Your task to perform on an android device: change the clock display to analog Image 0: 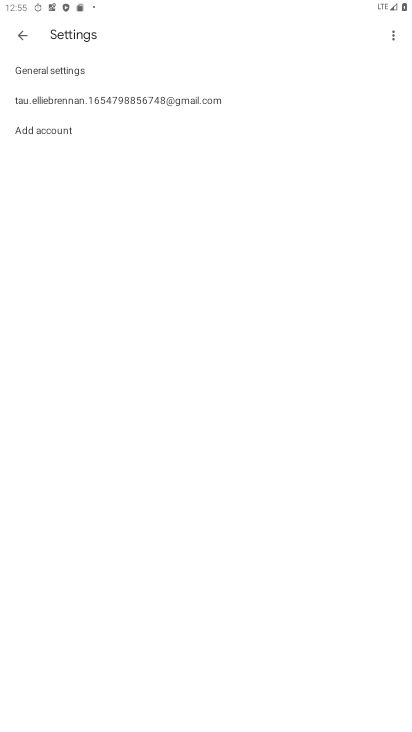
Step 0: press home button
Your task to perform on an android device: change the clock display to analog Image 1: 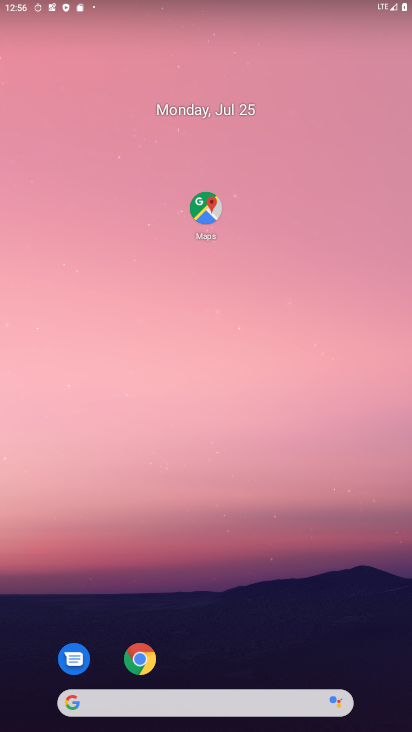
Step 1: click (138, 255)
Your task to perform on an android device: change the clock display to analog Image 2: 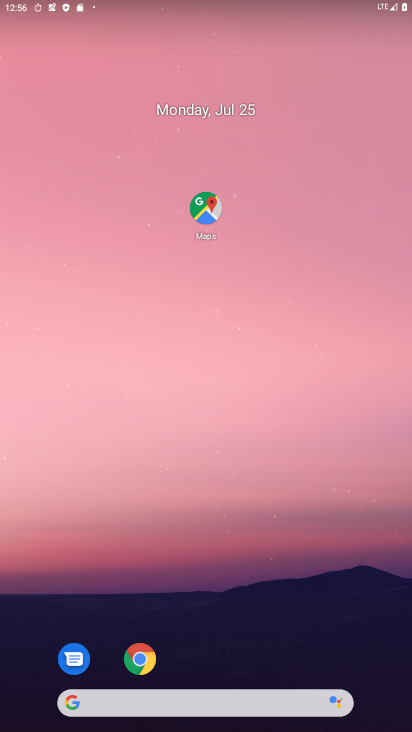
Step 2: drag from (43, 685) to (211, 183)
Your task to perform on an android device: change the clock display to analog Image 3: 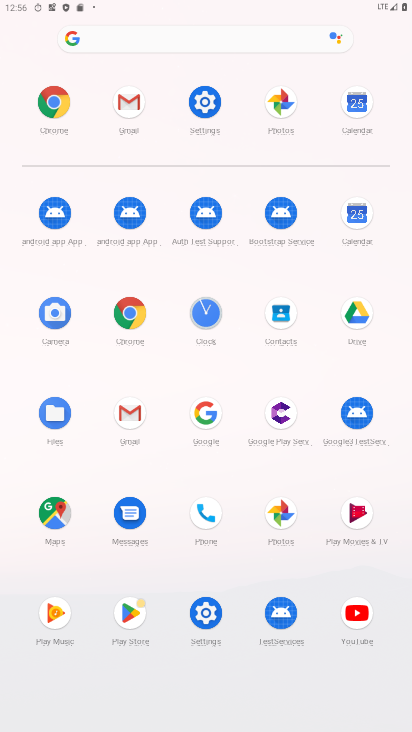
Step 3: click (185, 627)
Your task to perform on an android device: change the clock display to analog Image 4: 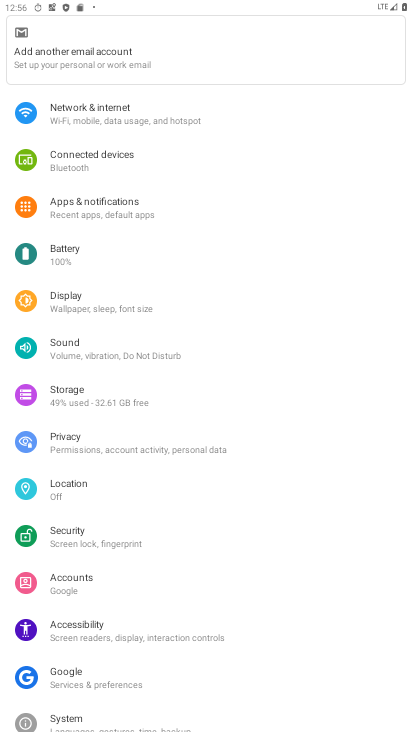
Step 4: press home button
Your task to perform on an android device: change the clock display to analog Image 5: 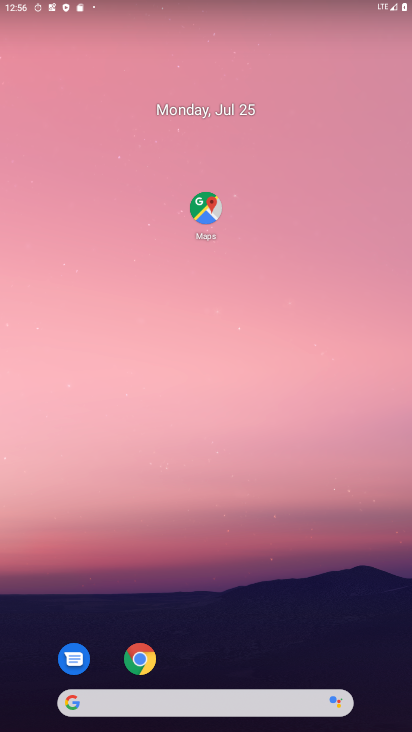
Step 5: drag from (99, 623) to (247, 253)
Your task to perform on an android device: change the clock display to analog Image 6: 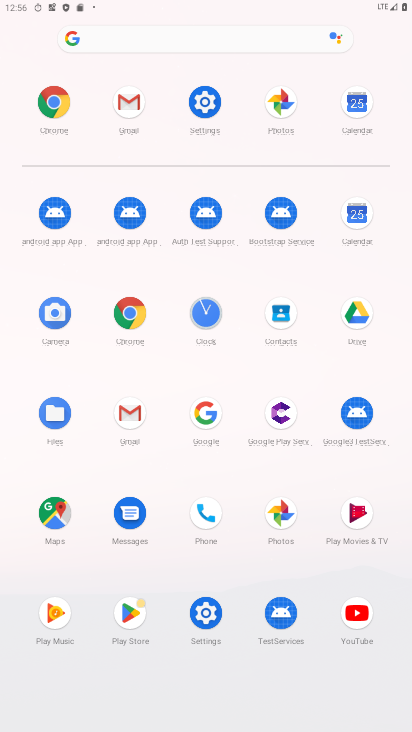
Step 6: click (213, 324)
Your task to perform on an android device: change the clock display to analog Image 7: 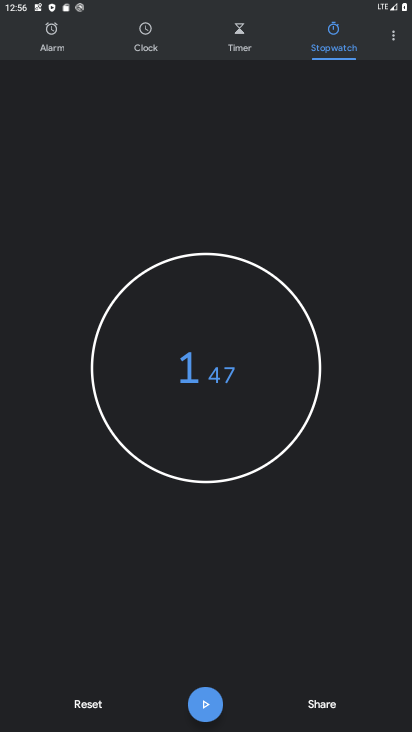
Step 7: click (396, 35)
Your task to perform on an android device: change the clock display to analog Image 8: 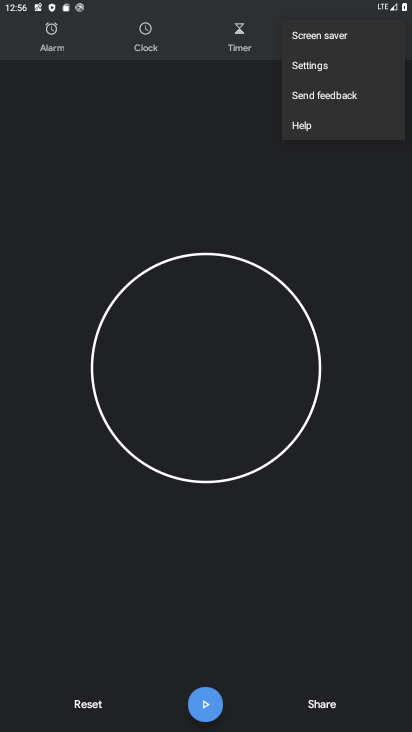
Step 8: click (316, 71)
Your task to perform on an android device: change the clock display to analog Image 9: 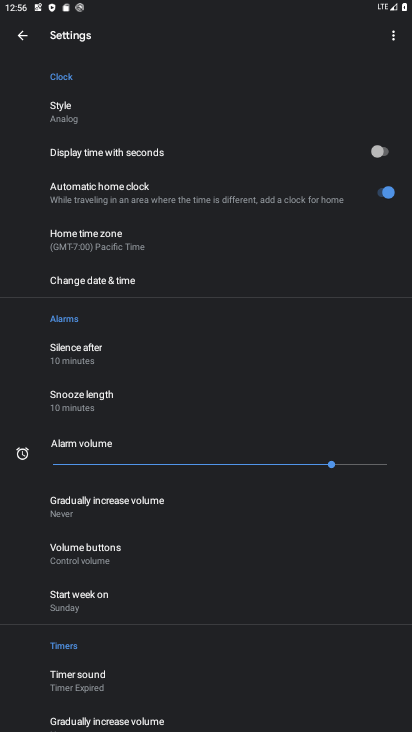
Step 9: click (166, 117)
Your task to perform on an android device: change the clock display to analog Image 10: 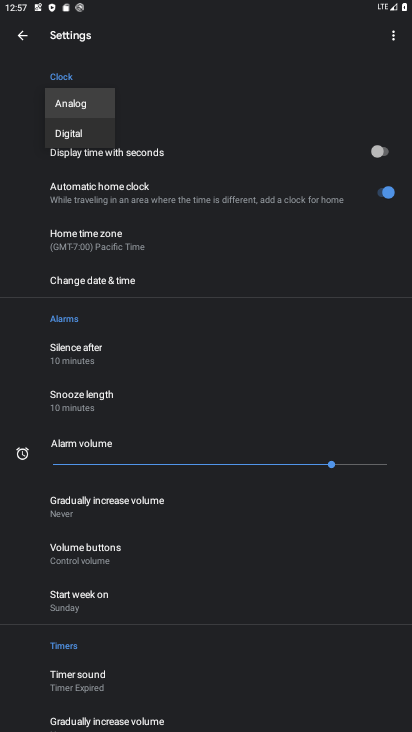
Step 10: task complete